Your task to perform on an android device: What's the weather going to be tomorrow? Image 0: 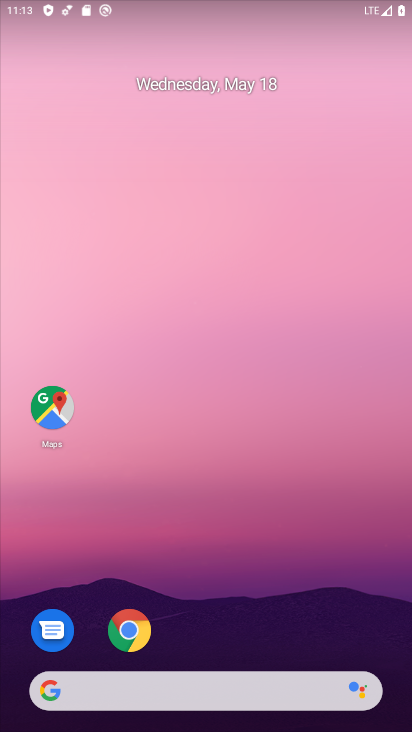
Step 0: click (182, 698)
Your task to perform on an android device: What's the weather going to be tomorrow? Image 1: 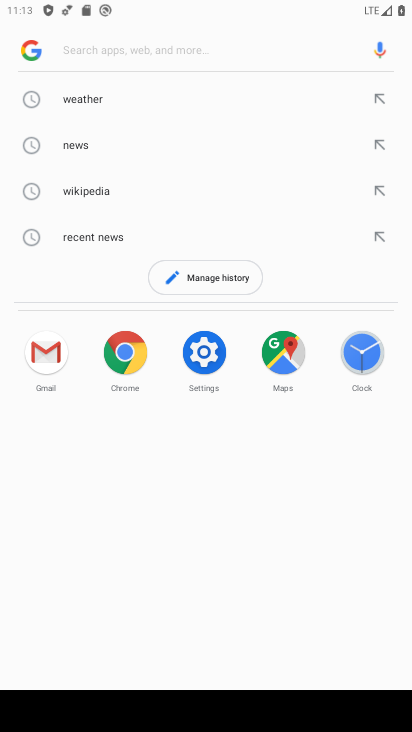
Step 1: click (83, 105)
Your task to perform on an android device: What's the weather going to be tomorrow? Image 2: 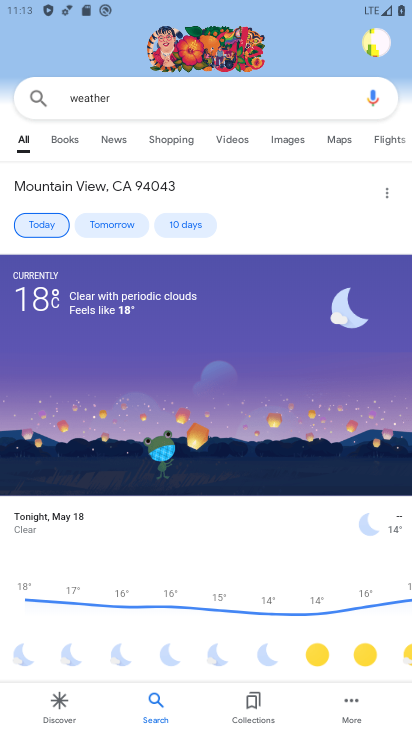
Step 2: click (112, 227)
Your task to perform on an android device: What's the weather going to be tomorrow? Image 3: 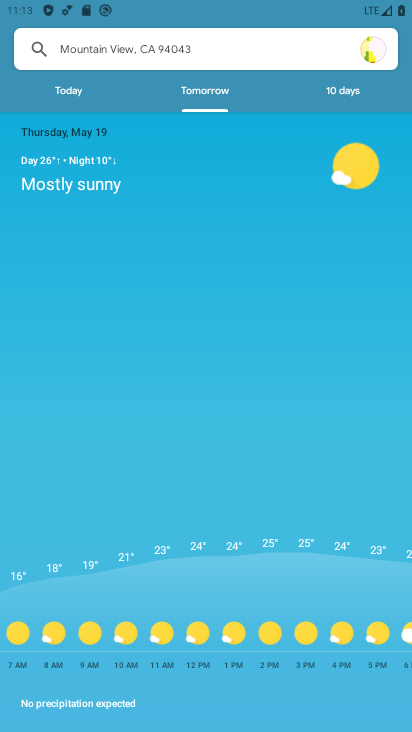
Step 3: task complete